Your task to perform on an android device: Is it going to rain this weekend? Image 0: 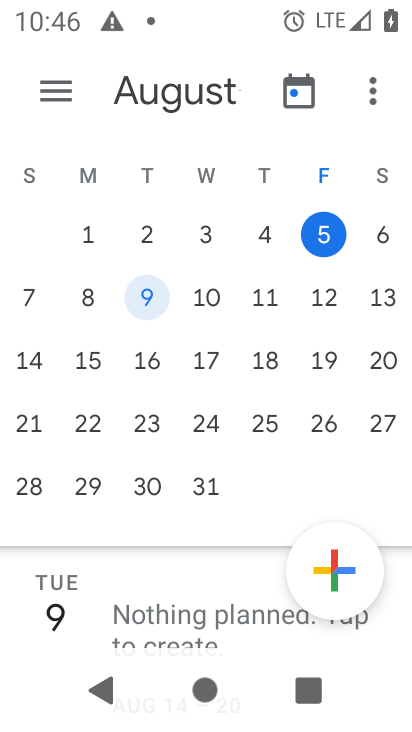
Step 0: press home button
Your task to perform on an android device: Is it going to rain this weekend? Image 1: 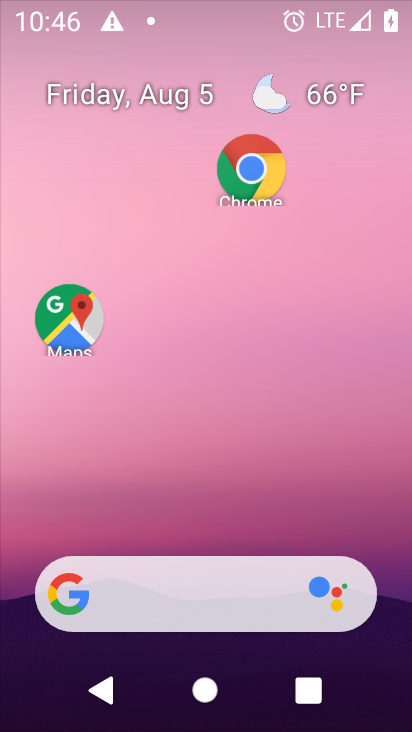
Step 1: drag from (221, 527) to (171, 149)
Your task to perform on an android device: Is it going to rain this weekend? Image 2: 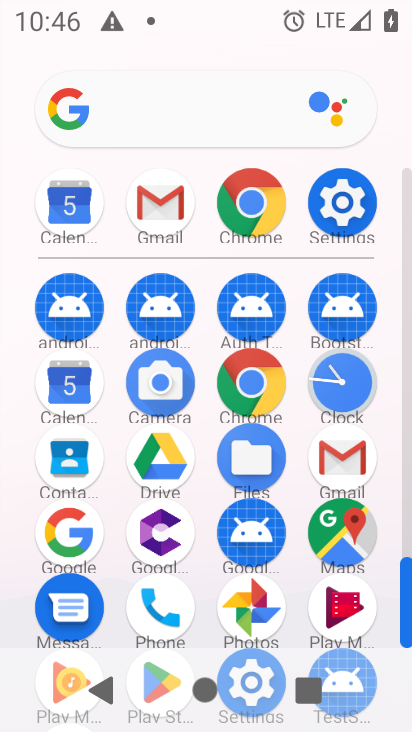
Step 2: click (89, 528)
Your task to perform on an android device: Is it going to rain this weekend? Image 3: 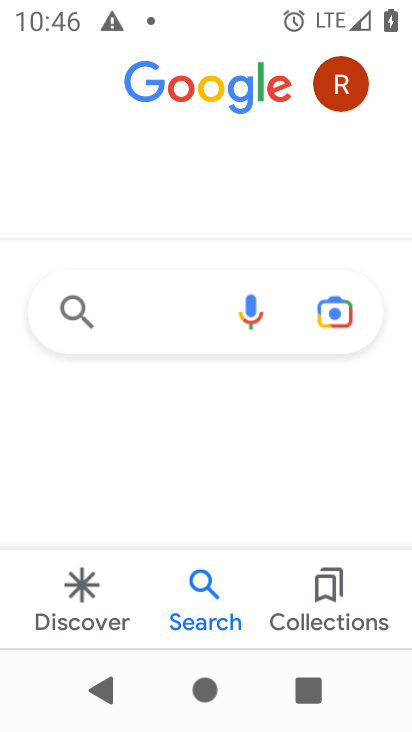
Step 3: click (155, 308)
Your task to perform on an android device: Is it going to rain this weekend? Image 4: 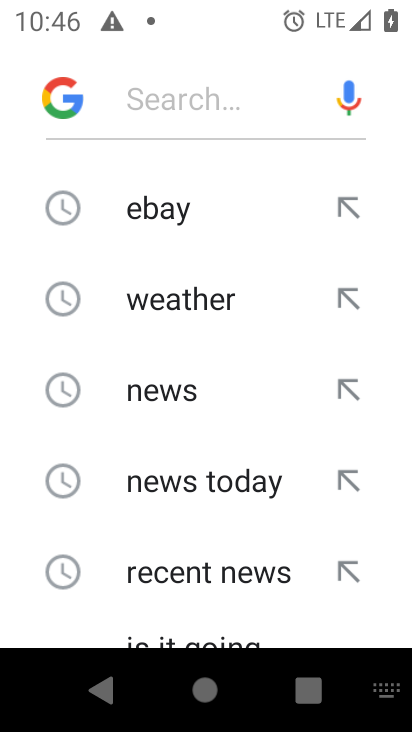
Step 4: click (200, 310)
Your task to perform on an android device: Is it going to rain this weekend? Image 5: 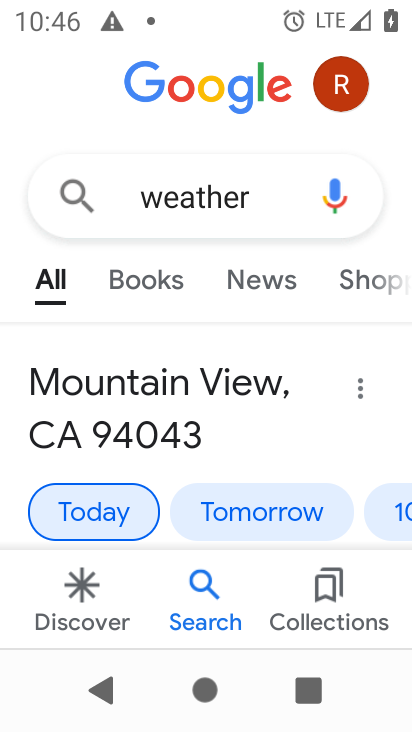
Step 5: click (391, 506)
Your task to perform on an android device: Is it going to rain this weekend? Image 6: 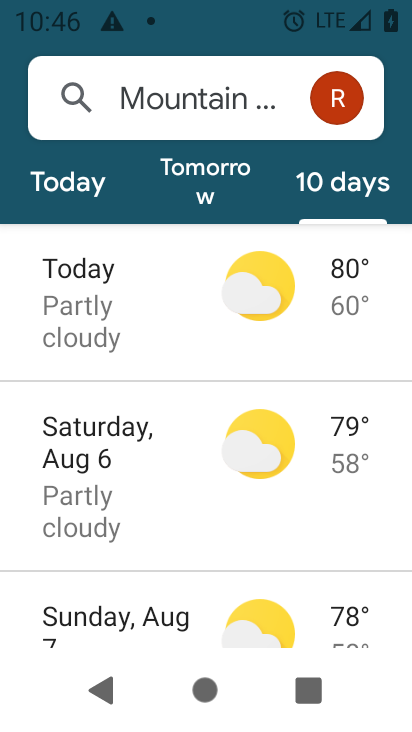
Step 6: task complete